Your task to perform on an android device: Open Google Chrome and open the bookmarks view Image 0: 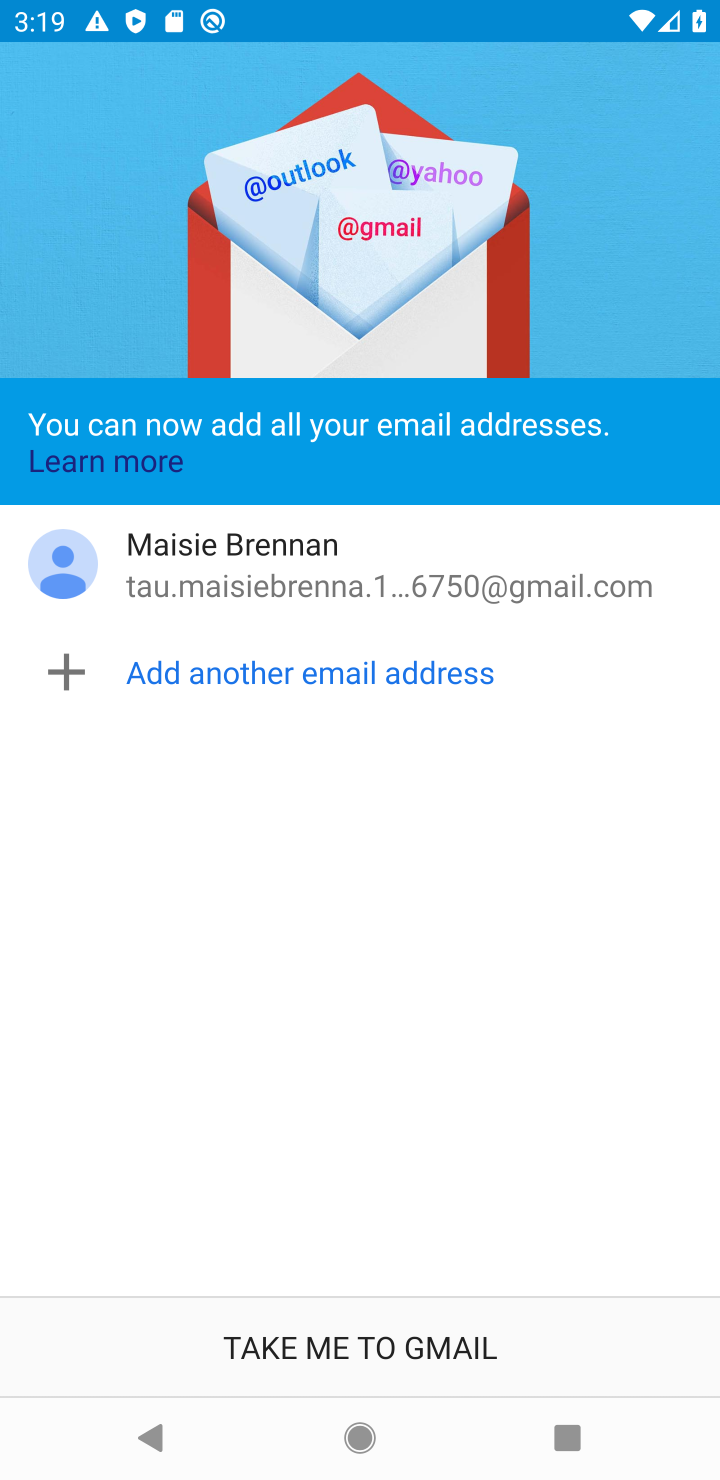
Step 0: press home button
Your task to perform on an android device: Open Google Chrome and open the bookmarks view Image 1: 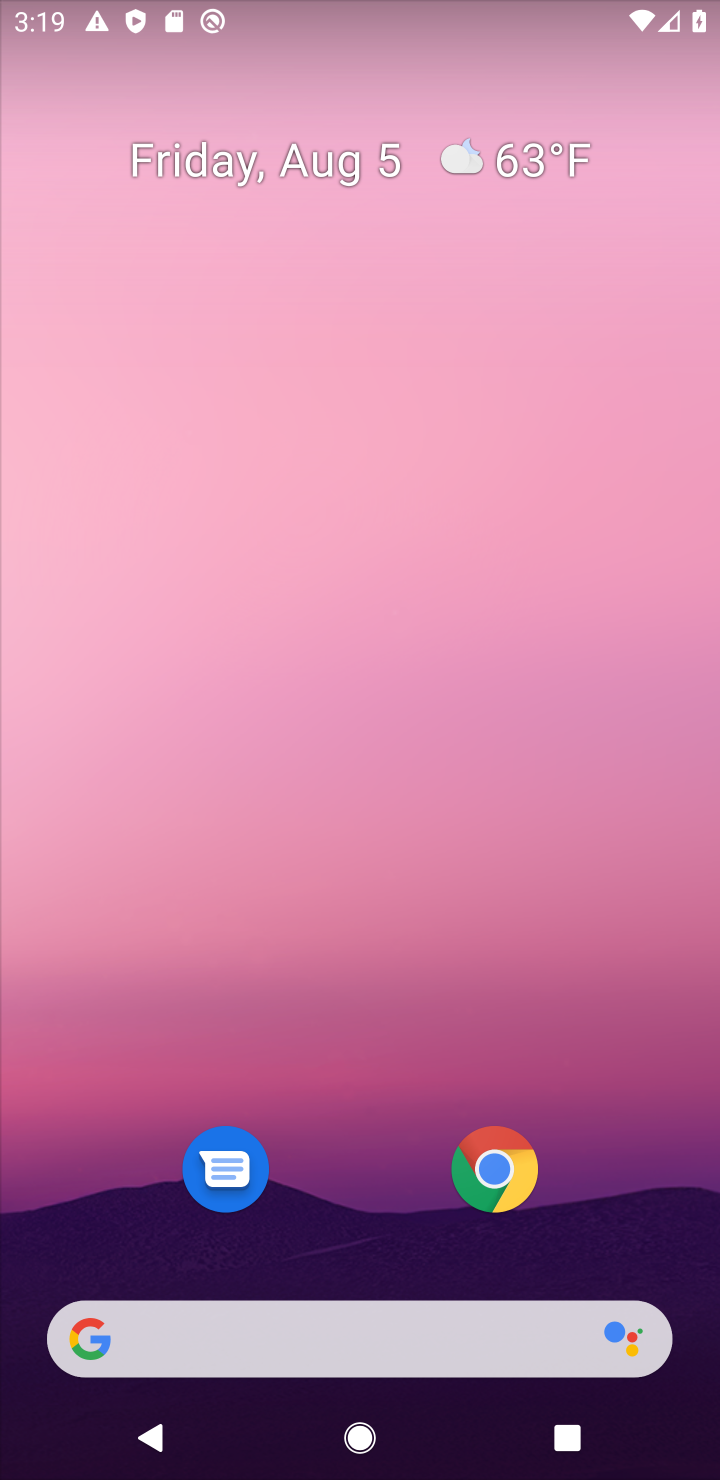
Step 1: click (500, 1152)
Your task to perform on an android device: Open Google Chrome and open the bookmarks view Image 2: 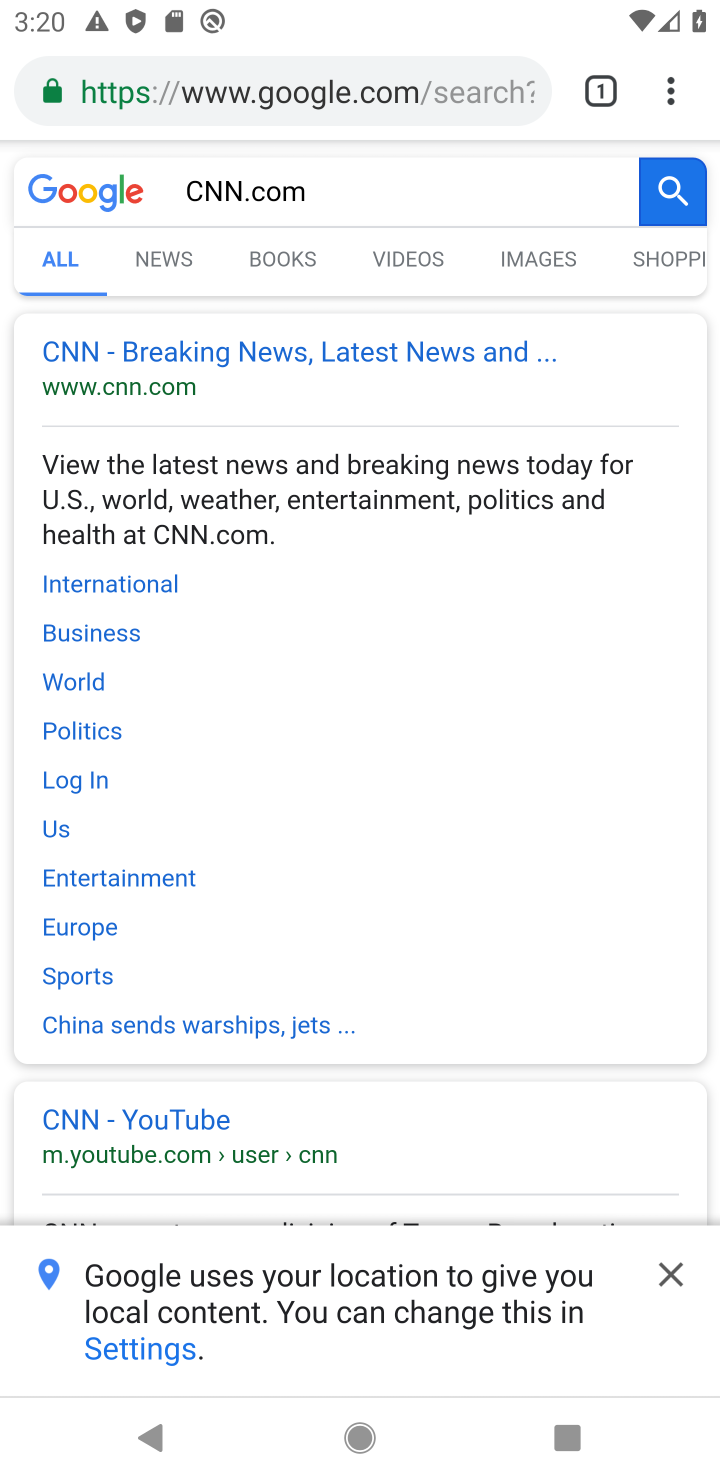
Step 2: click (498, 91)
Your task to perform on an android device: Open Google Chrome and open the bookmarks view Image 3: 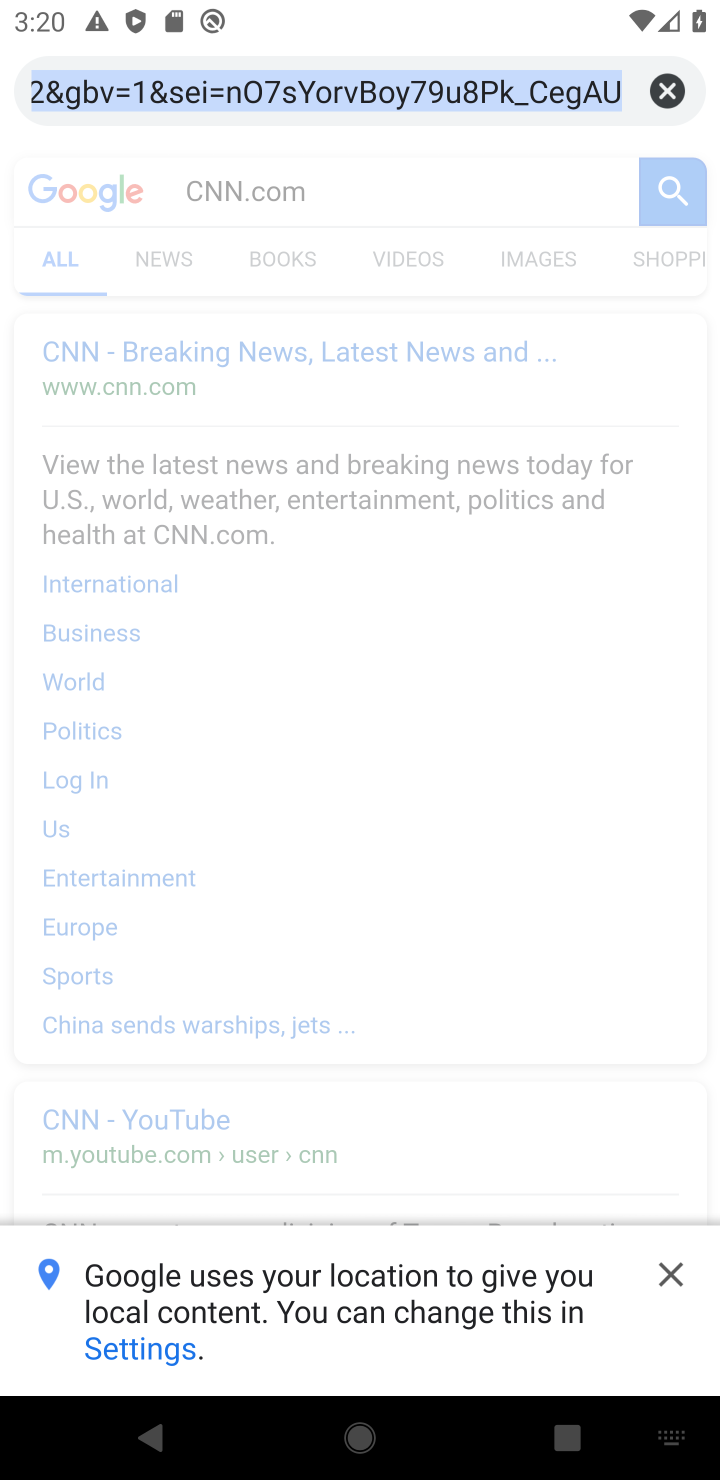
Step 3: press back button
Your task to perform on an android device: Open Google Chrome and open the bookmarks view Image 4: 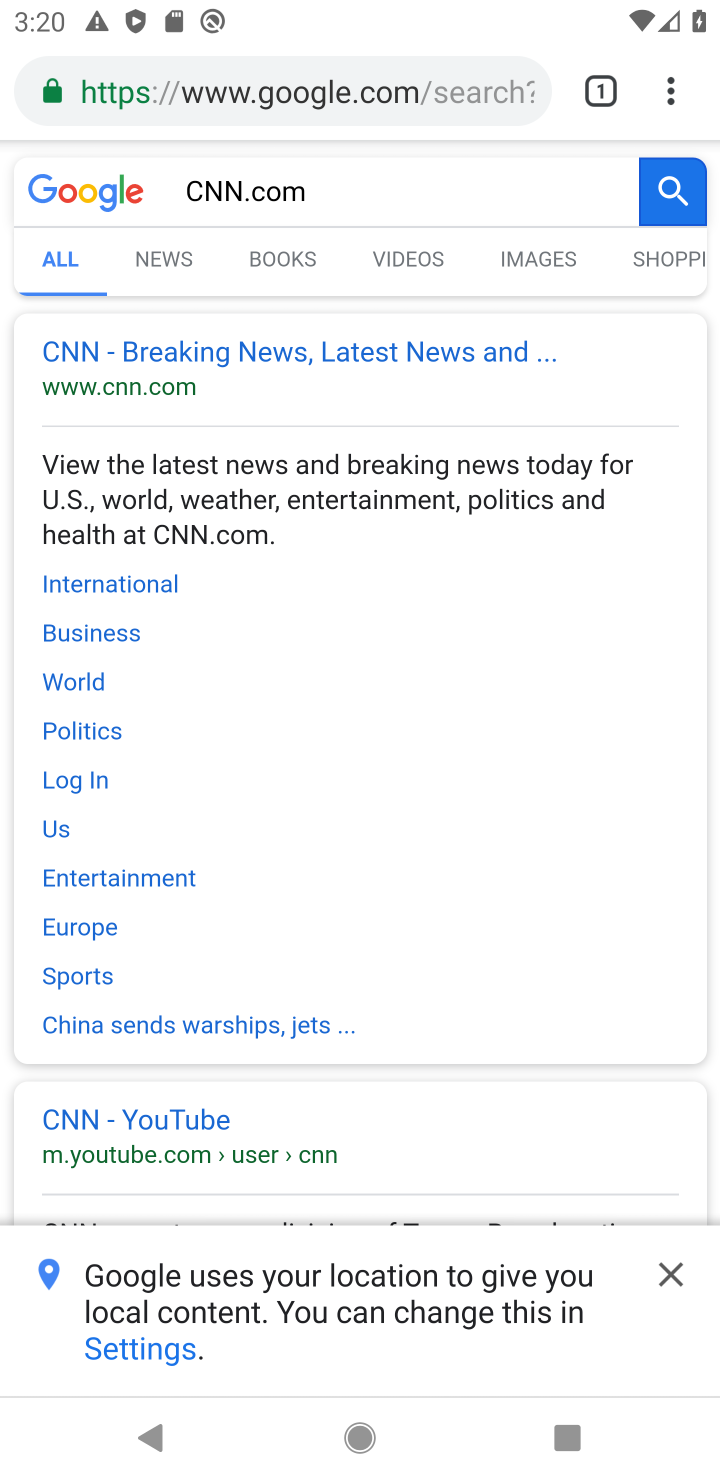
Step 4: click (680, 80)
Your task to perform on an android device: Open Google Chrome and open the bookmarks view Image 5: 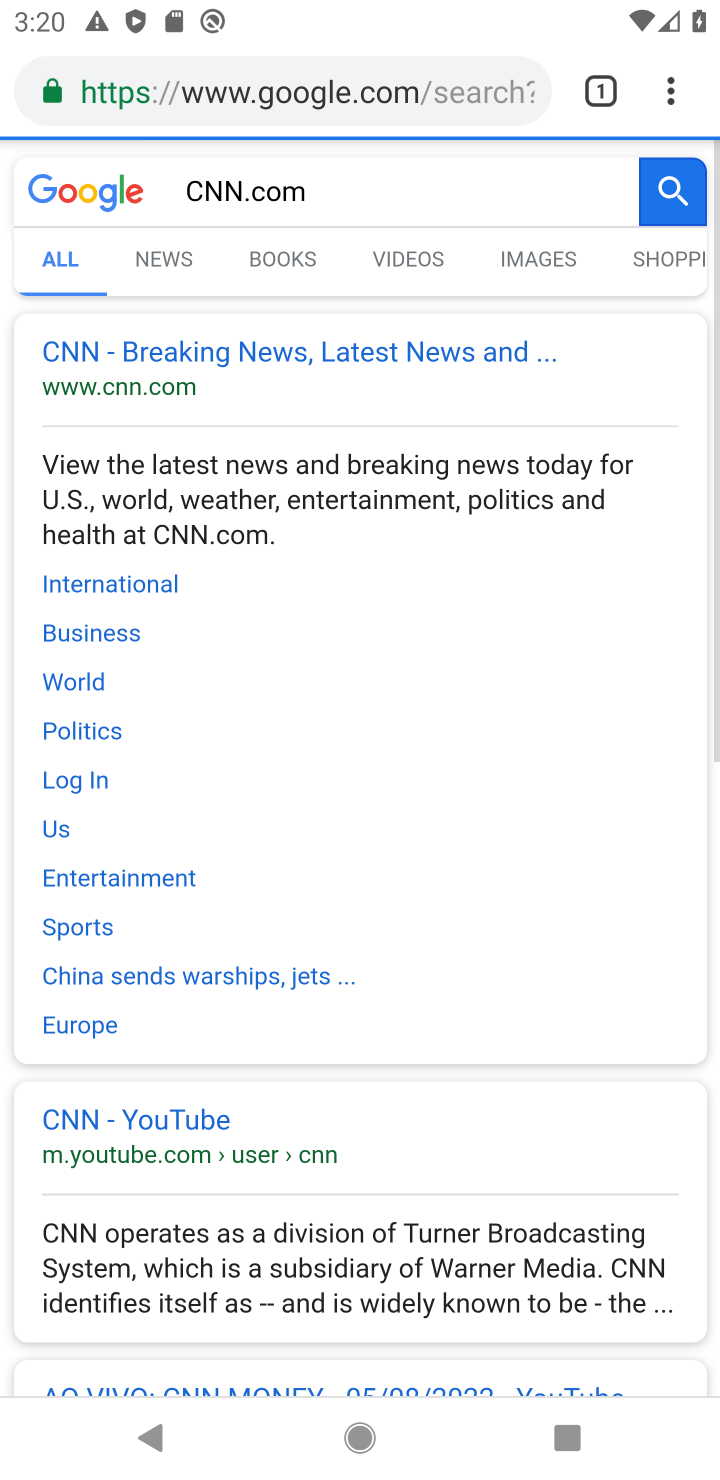
Step 5: click (672, 80)
Your task to perform on an android device: Open Google Chrome and open the bookmarks view Image 6: 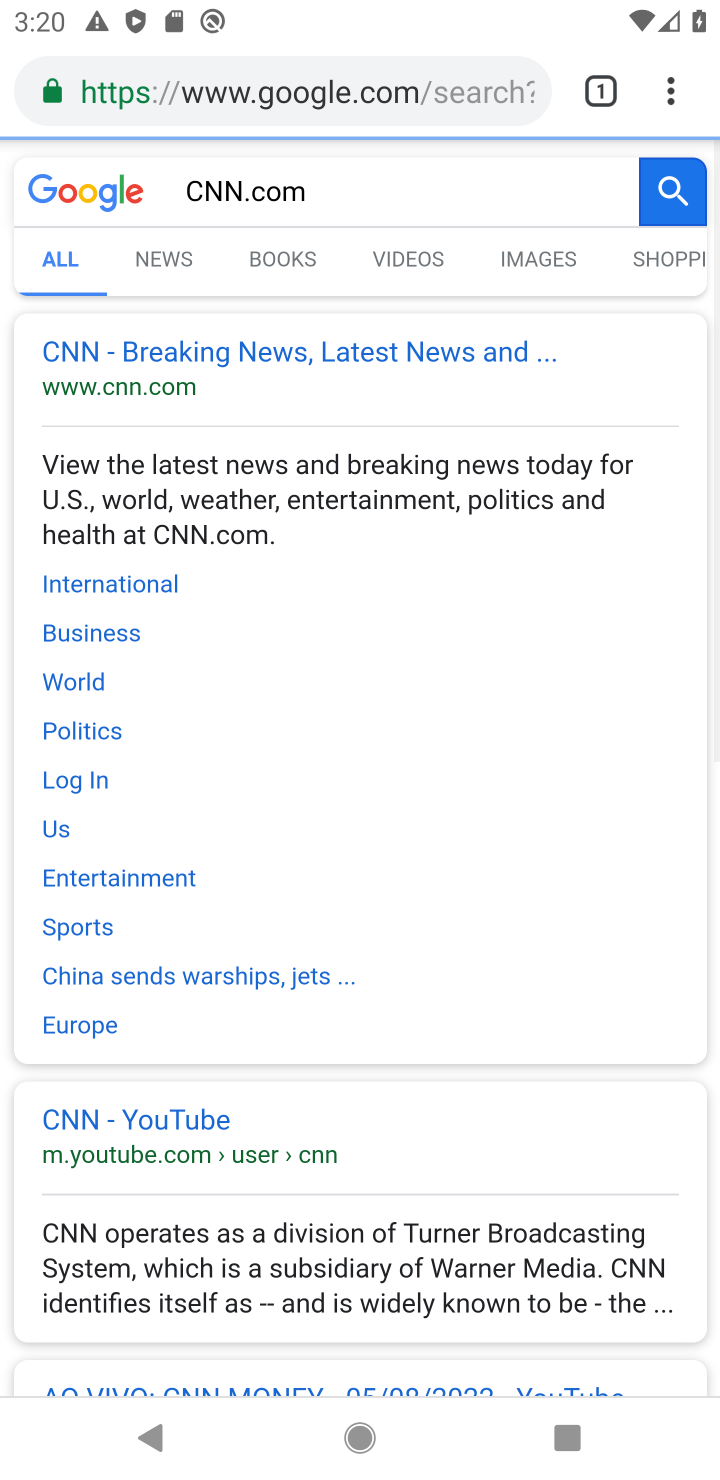
Step 6: click (667, 80)
Your task to perform on an android device: Open Google Chrome and open the bookmarks view Image 7: 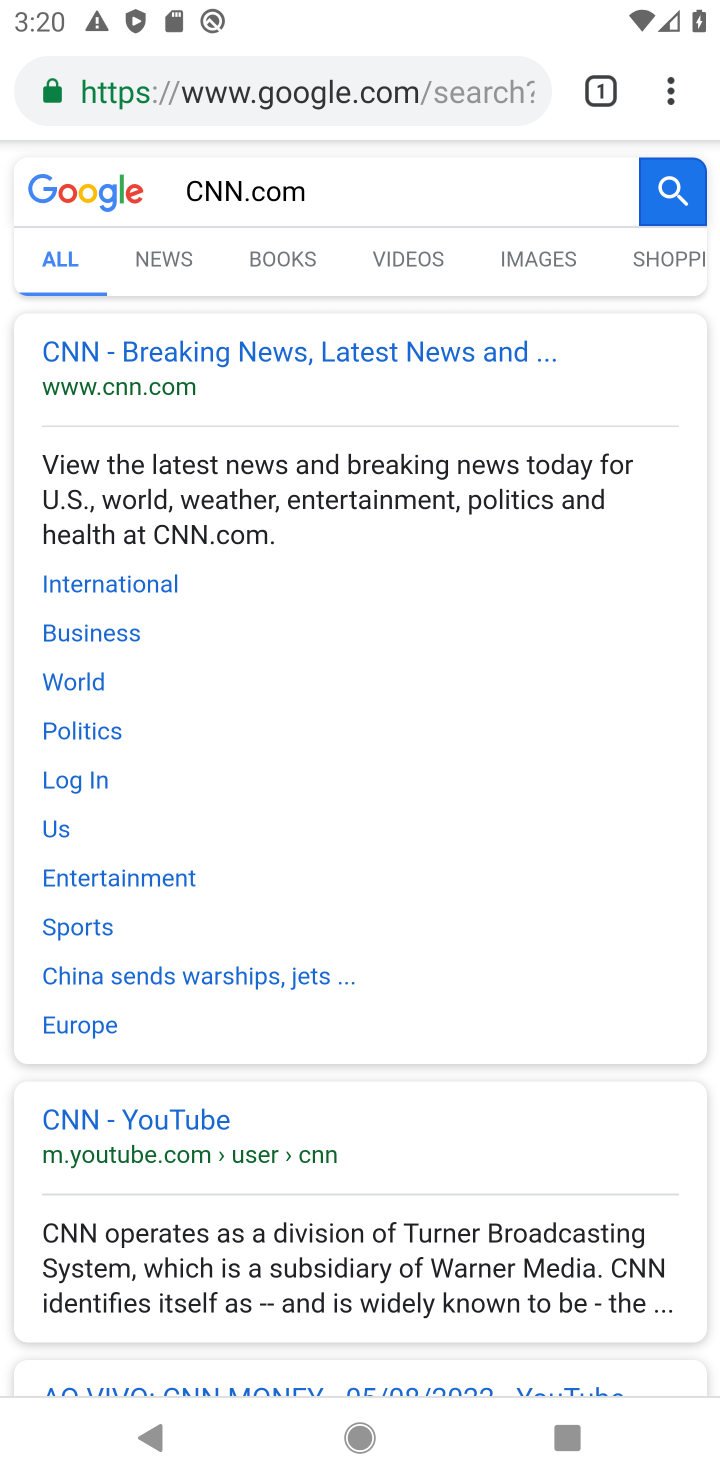
Step 7: click (667, 80)
Your task to perform on an android device: Open Google Chrome and open the bookmarks view Image 8: 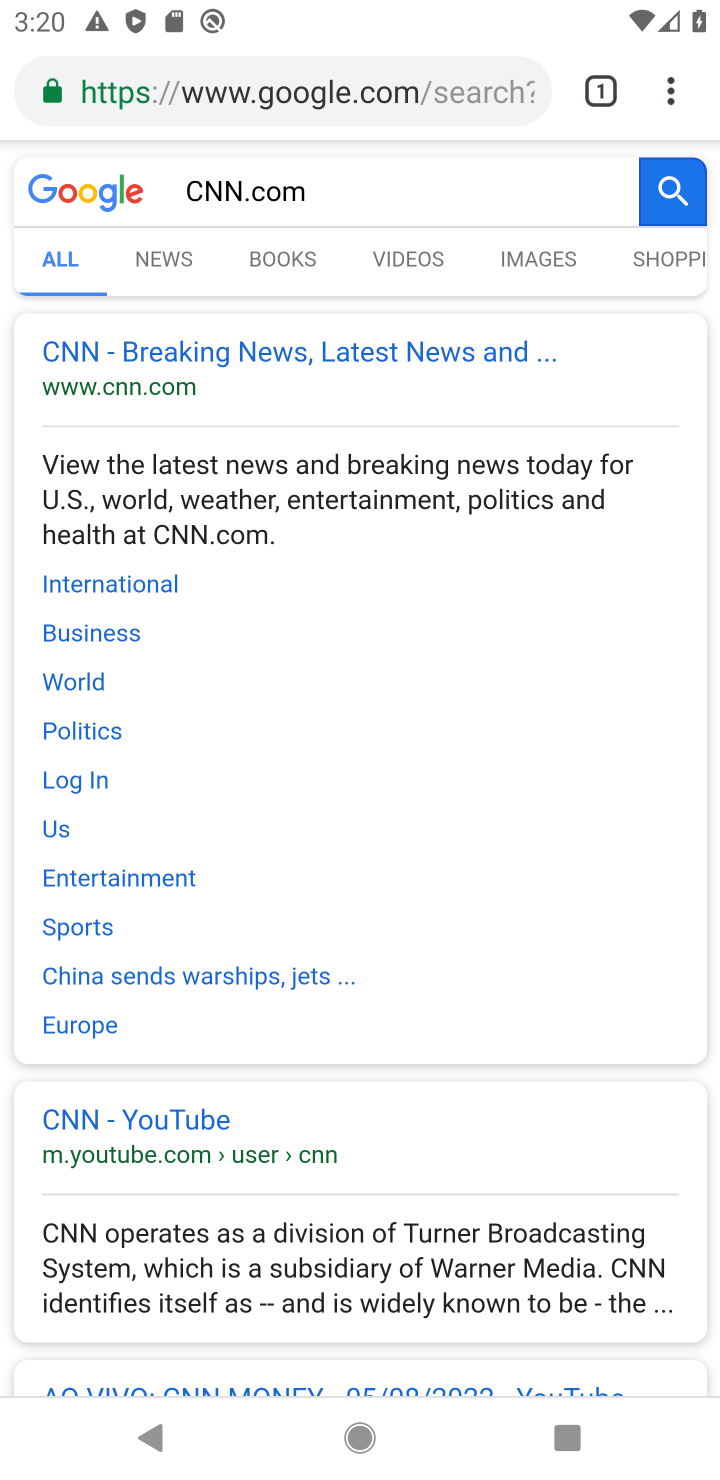
Step 8: click (675, 89)
Your task to perform on an android device: Open Google Chrome and open the bookmarks view Image 9: 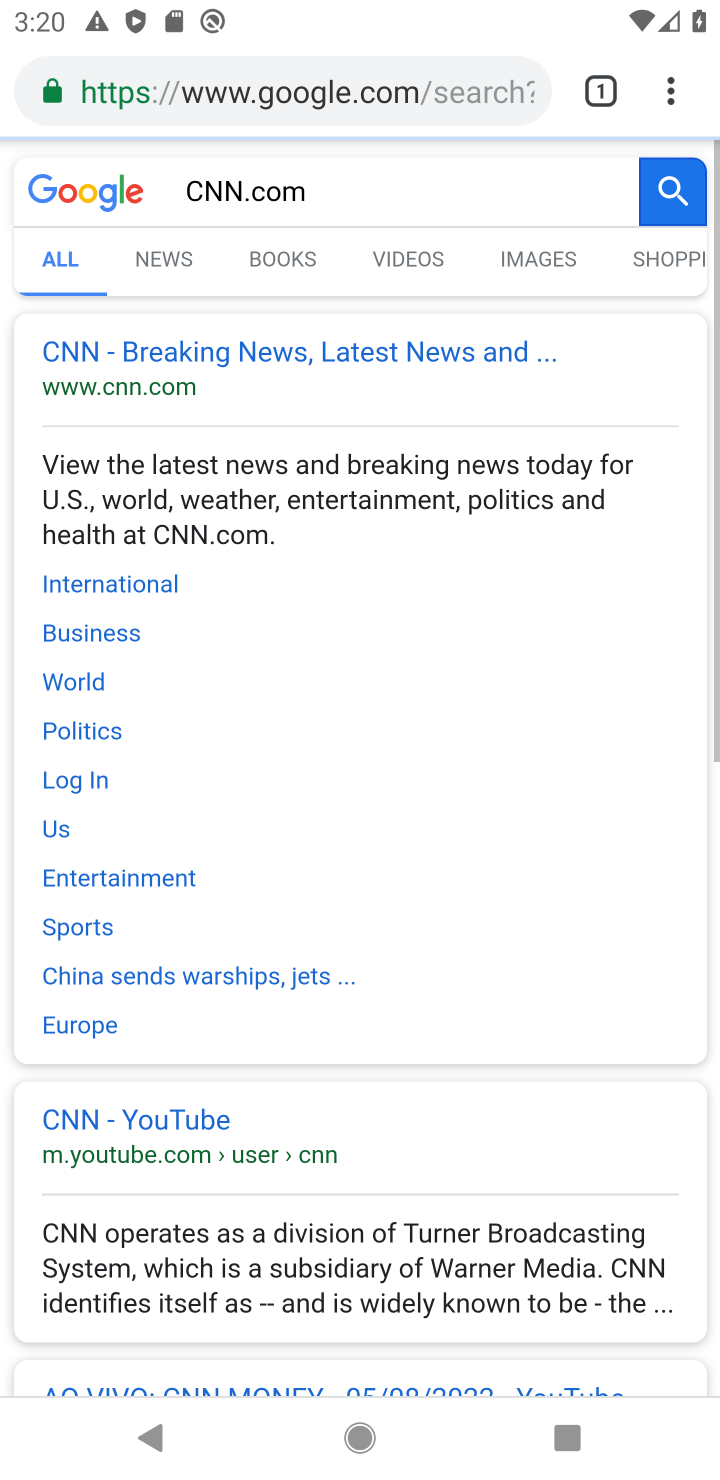
Step 9: click (675, 87)
Your task to perform on an android device: Open Google Chrome and open the bookmarks view Image 10: 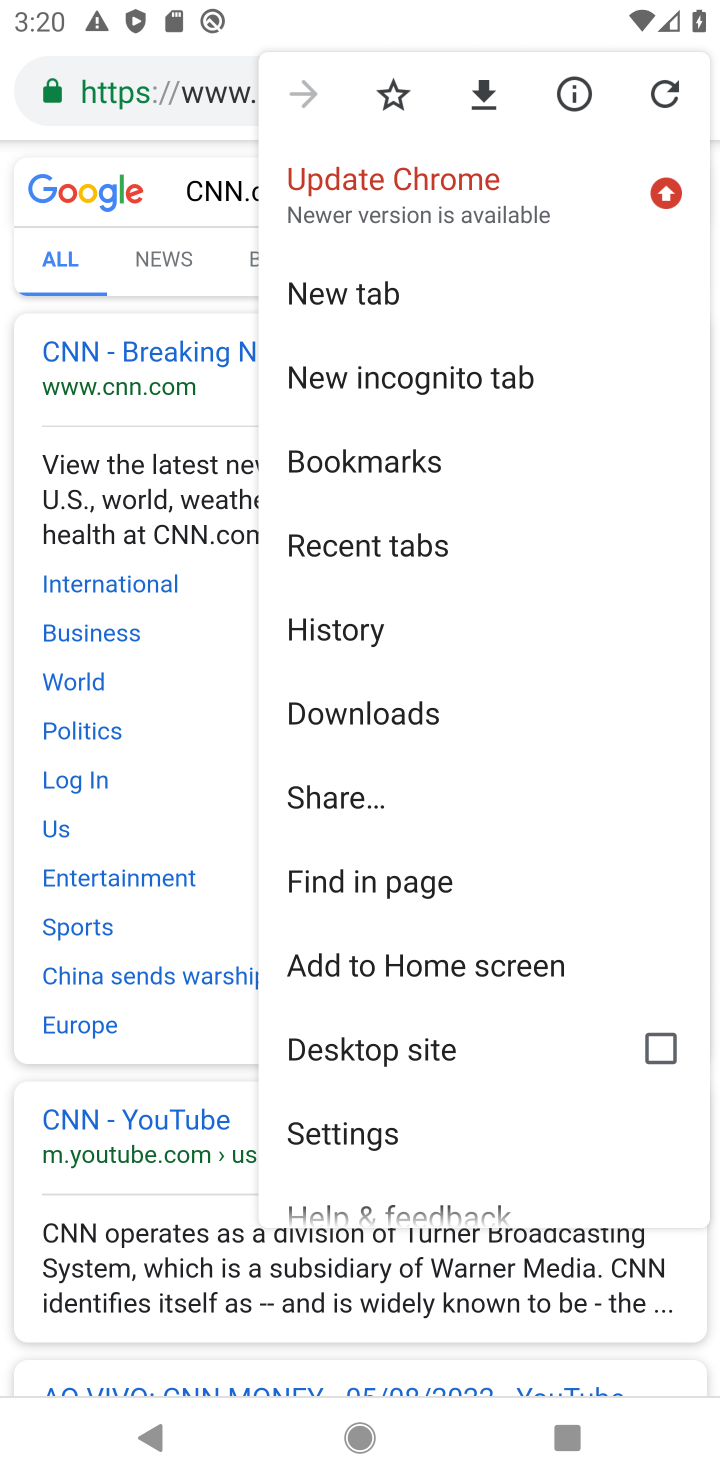
Step 10: click (391, 88)
Your task to perform on an android device: Open Google Chrome and open the bookmarks view Image 11: 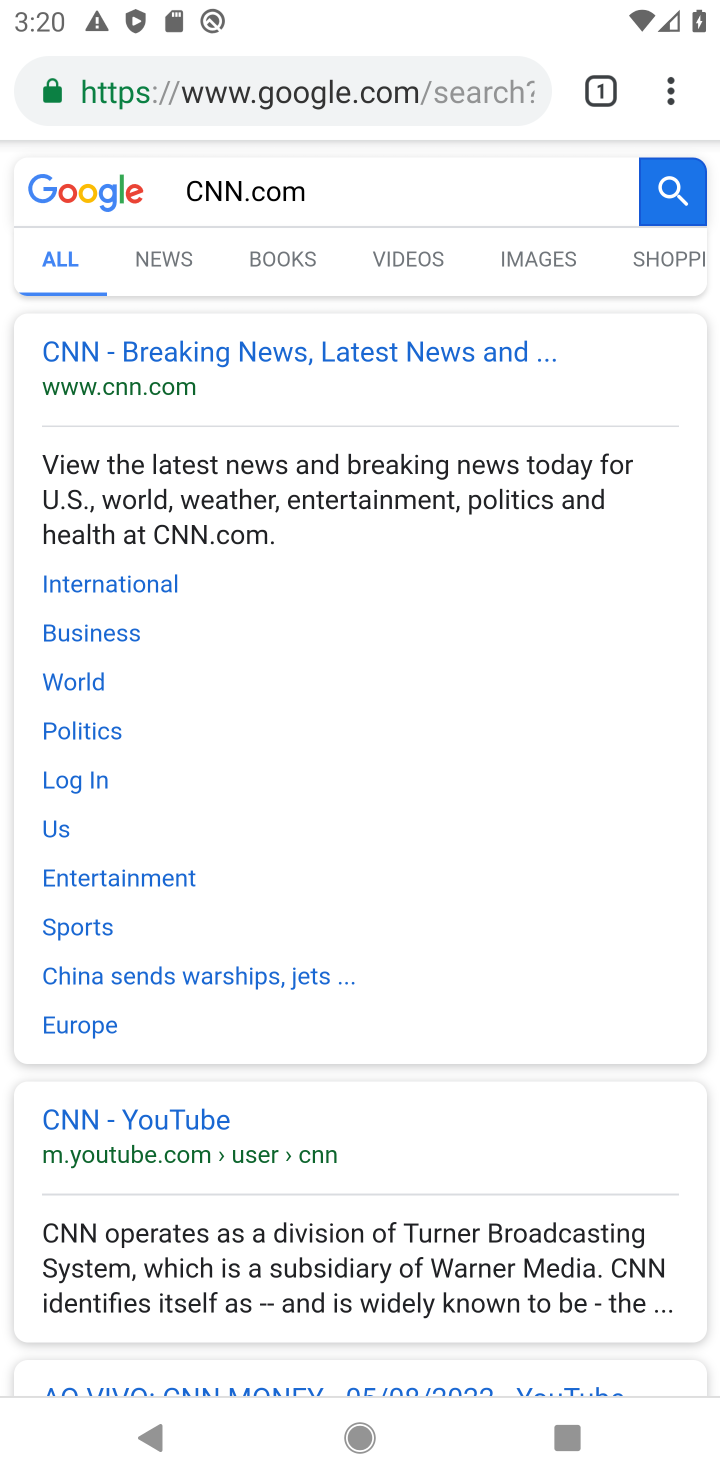
Step 11: task complete